Your task to perform on an android device: open app "Google Maps" Image 0: 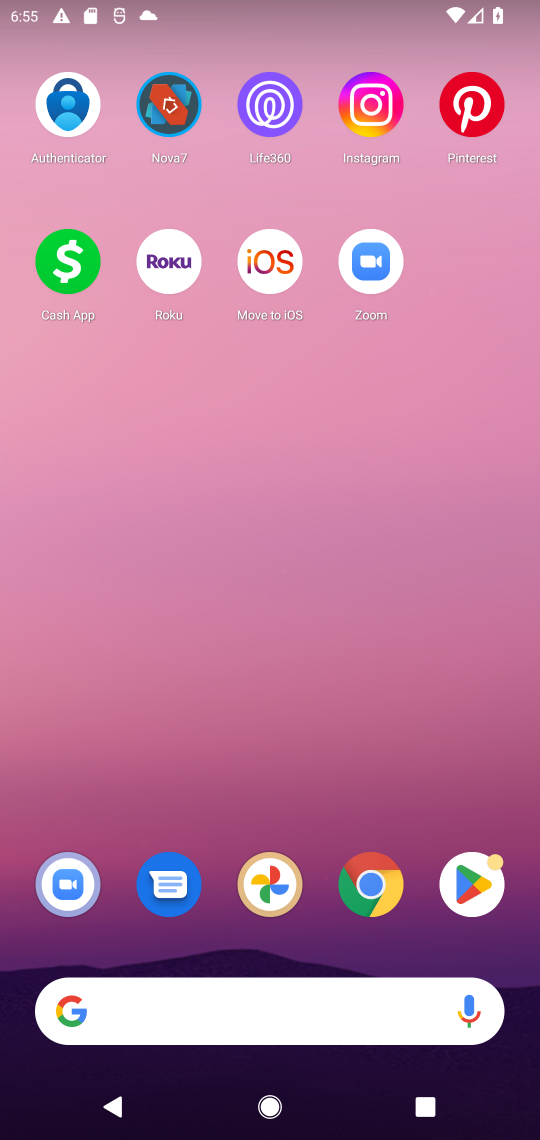
Step 0: press home button
Your task to perform on an android device: open app "Google Maps" Image 1: 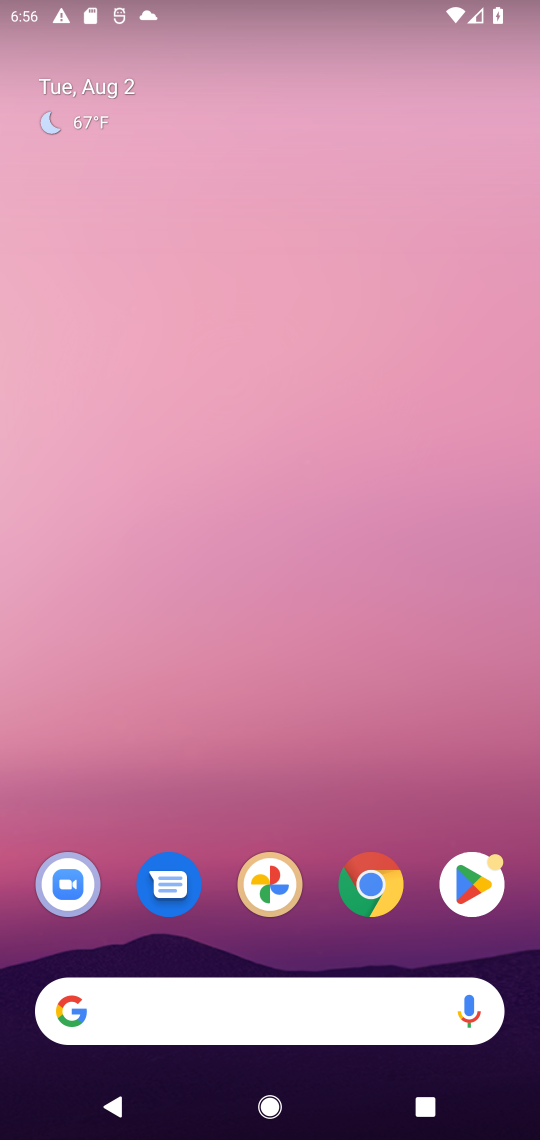
Step 1: click (470, 881)
Your task to perform on an android device: open app "Google Maps" Image 2: 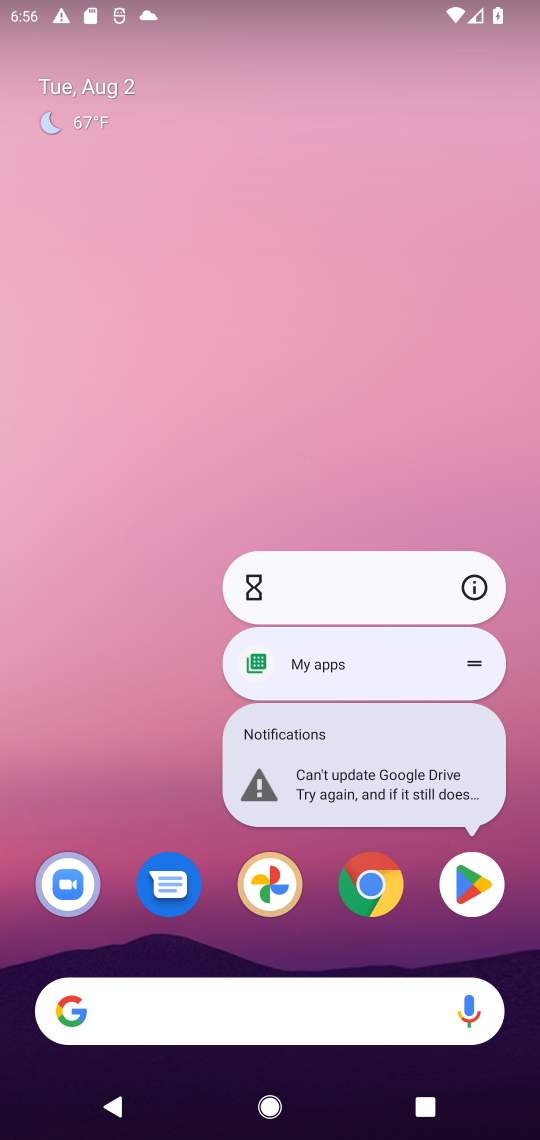
Step 2: click (473, 900)
Your task to perform on an android device: open app "Google Maps" Image 3: 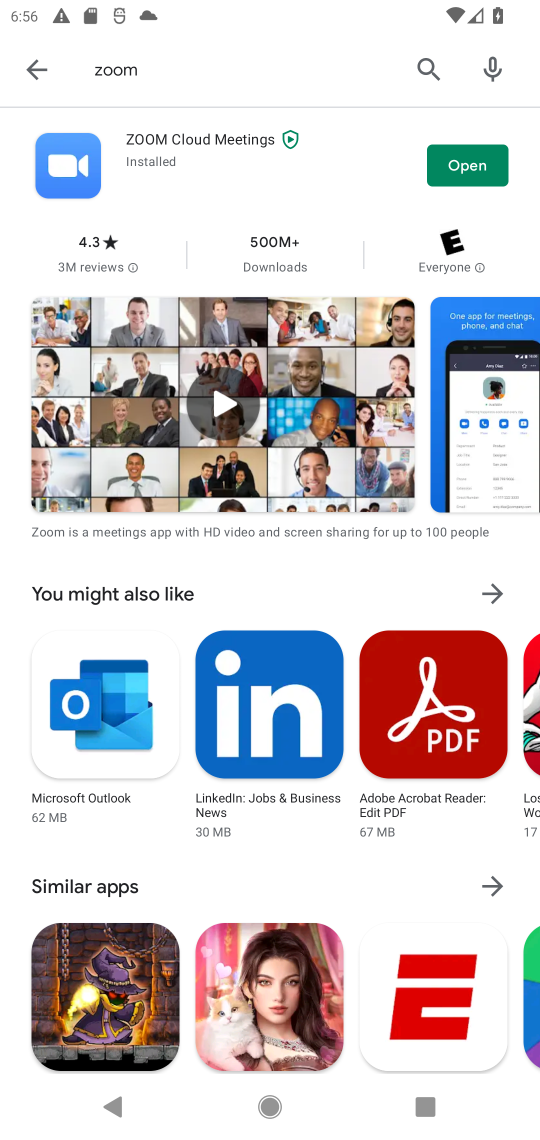
Step 3: click (419, 73)
Your task to perform on an android device: open app "Google Maps" Image 4: 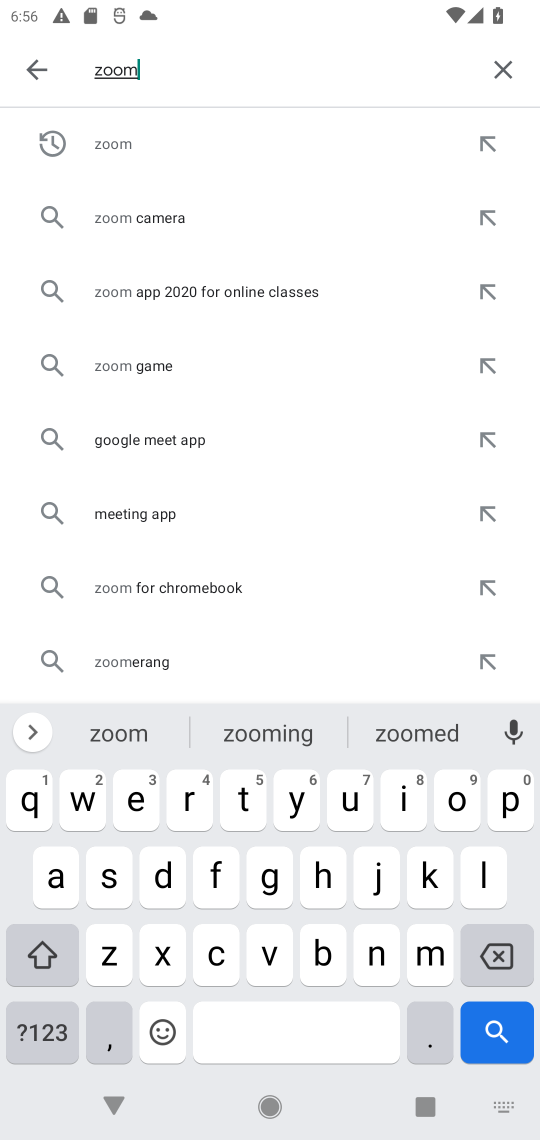
Step 4: click (501, 63)
Your task to perform on an android device: open app "Google Maps" Image 5: 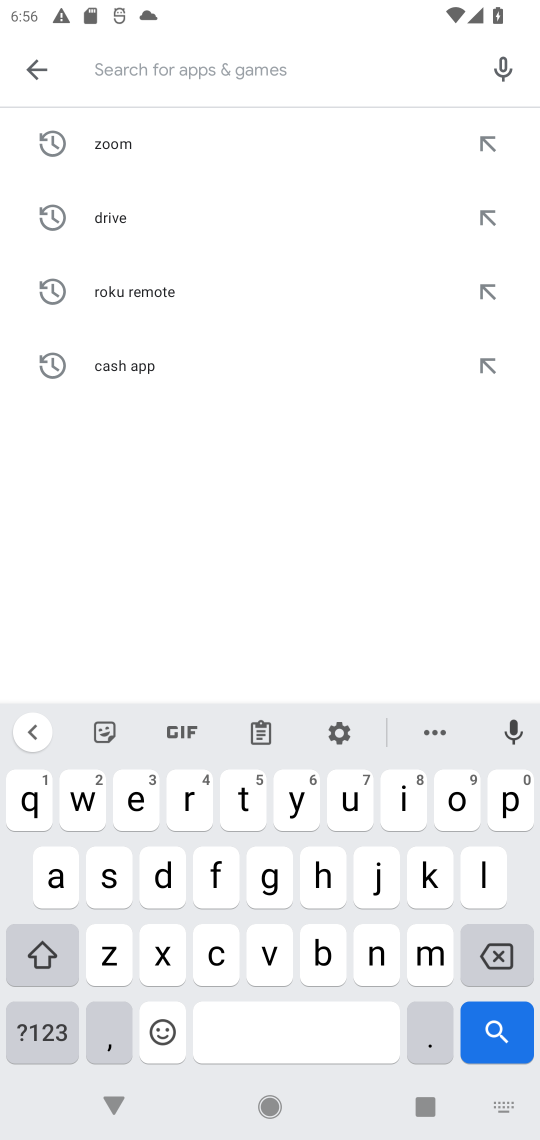
Step 5: click (428, 958)
Your task to perform on an android device: open app "Google Maps" Image 6: 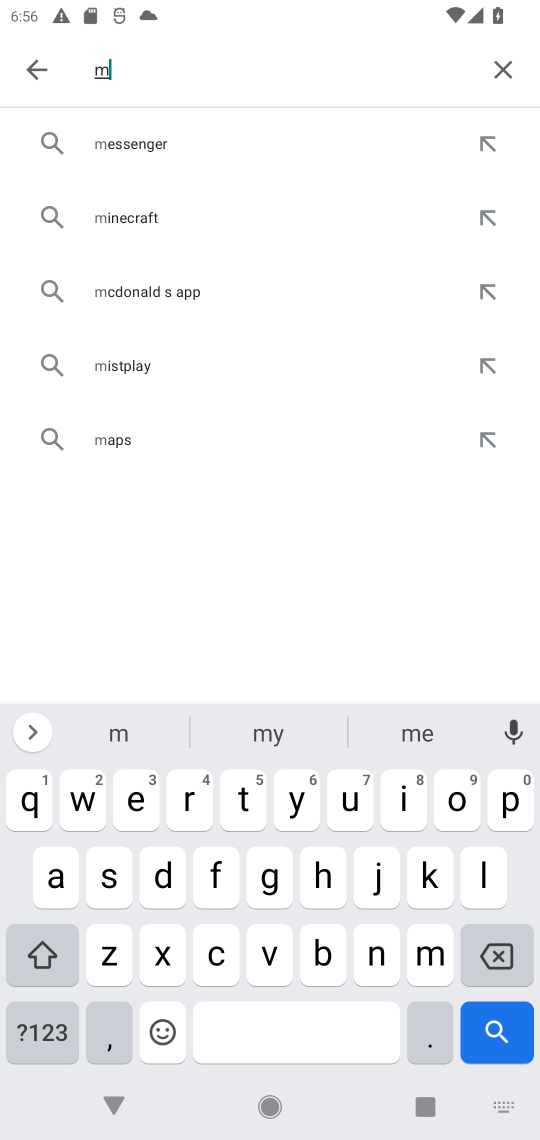
Step 6: click (49, 879)
Your task to perform on an android device: open app "Google Maps" Image 7: 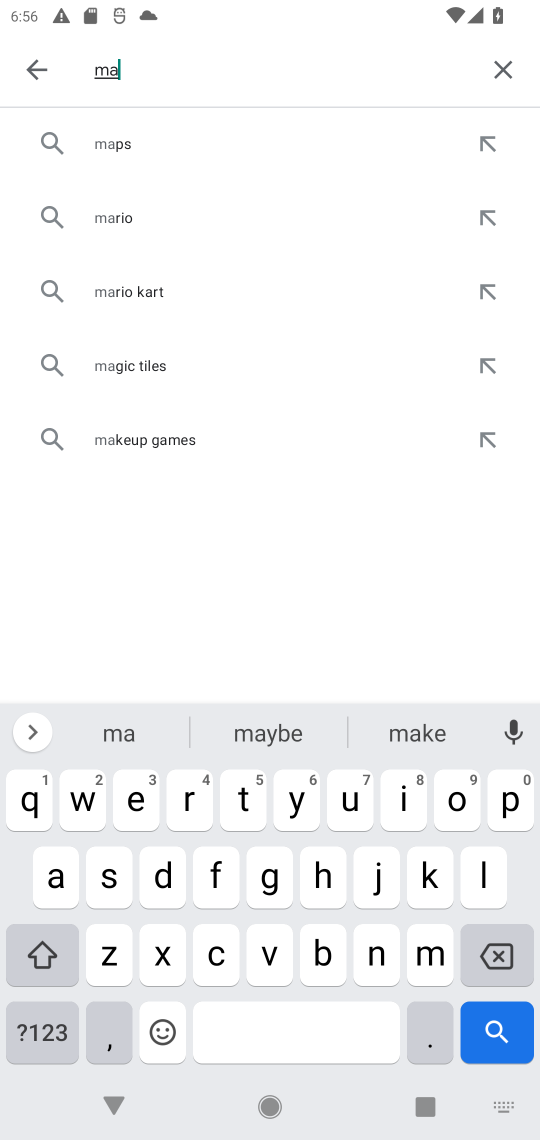
Step 7: click (523, 812)
Your task to perform on an android device: open app "Google Maps" Image 8: 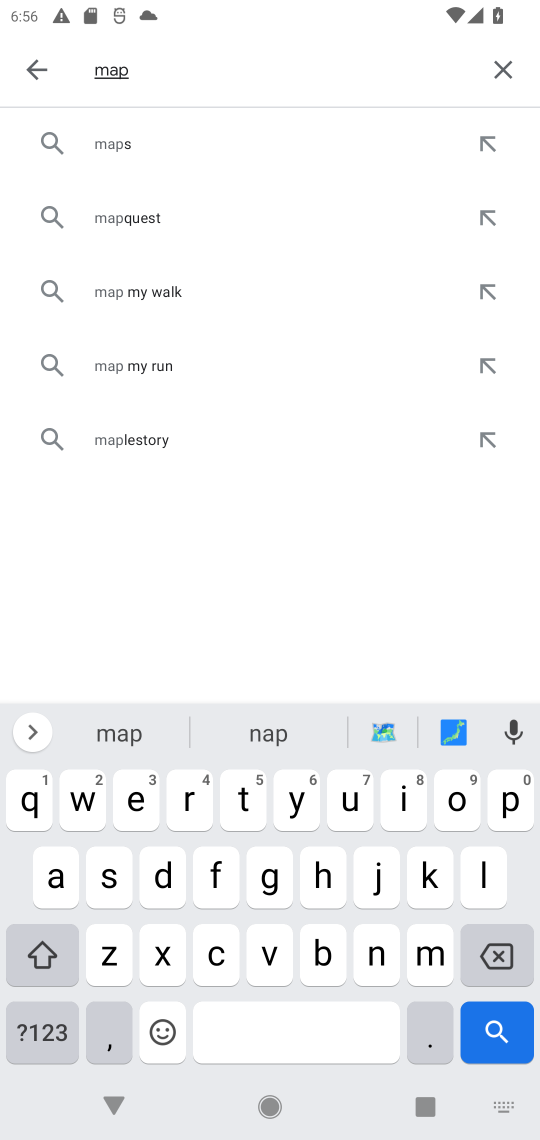
Step 8: click (150, 145)
Your task to perform on an android device: open app "Google Maps" Image 9: 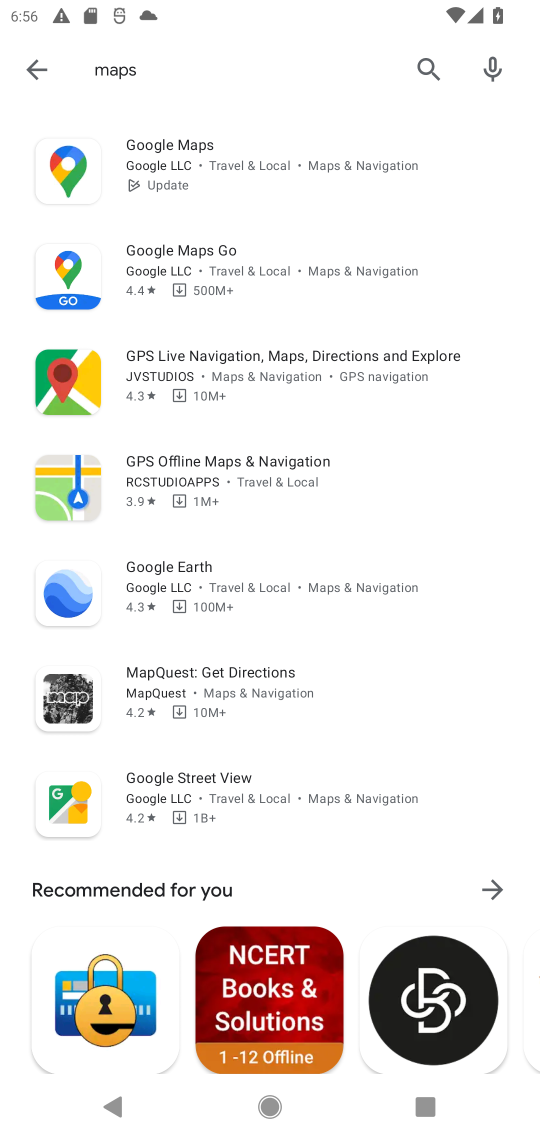
Step 9: click (161, 161)
Your task to perform on an android device: open app "Google Maps" Image 10: 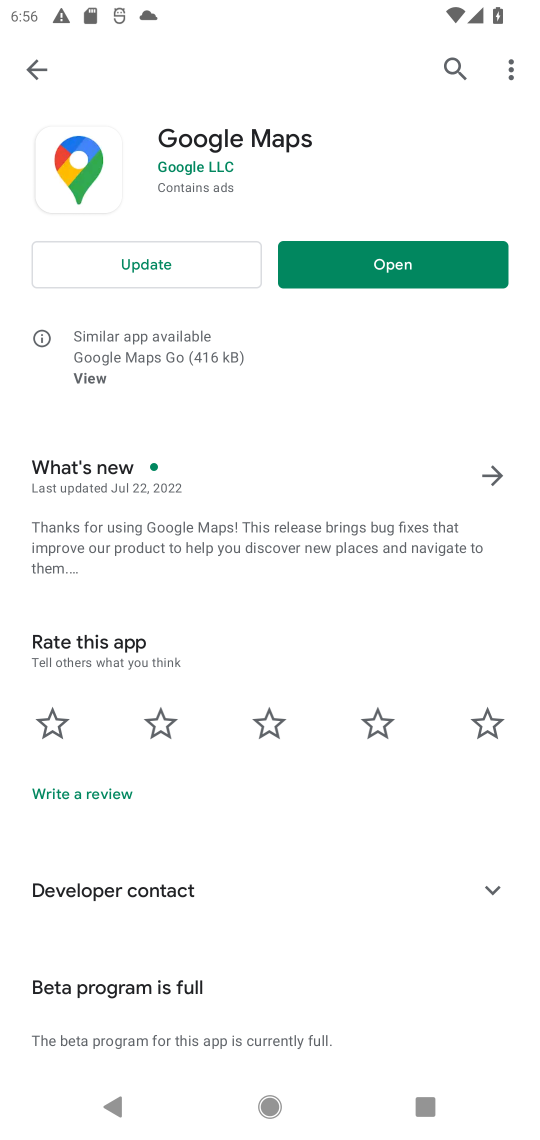
Step 10: click (366, 271)
Your task to perform on an android device: open app "Google Maps" Image 11: 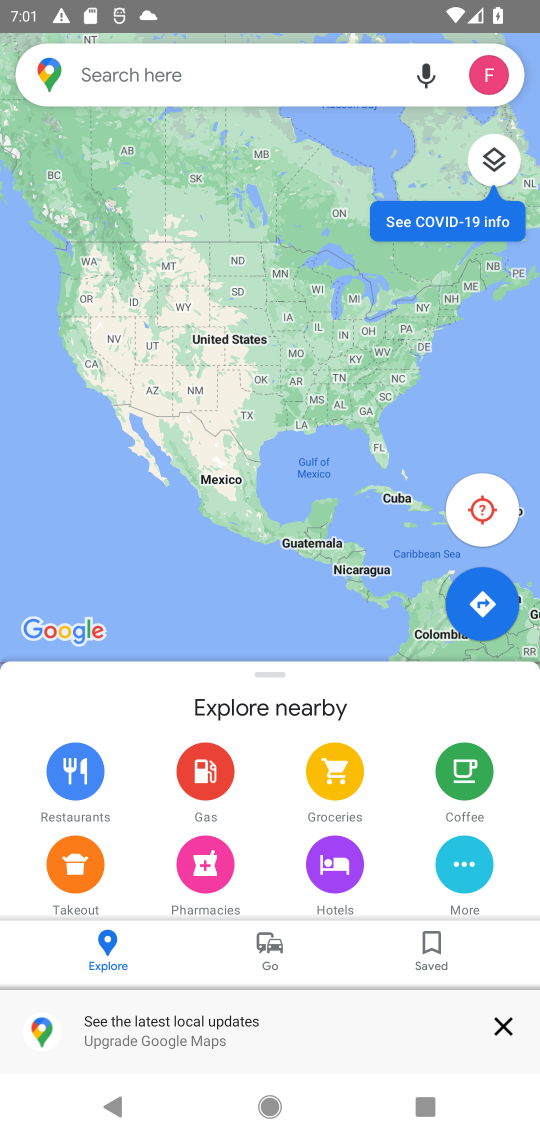
Step 11: task complete